Your task to perform on an android device: read, delete, or share a saved page in the chrome app Image 0: 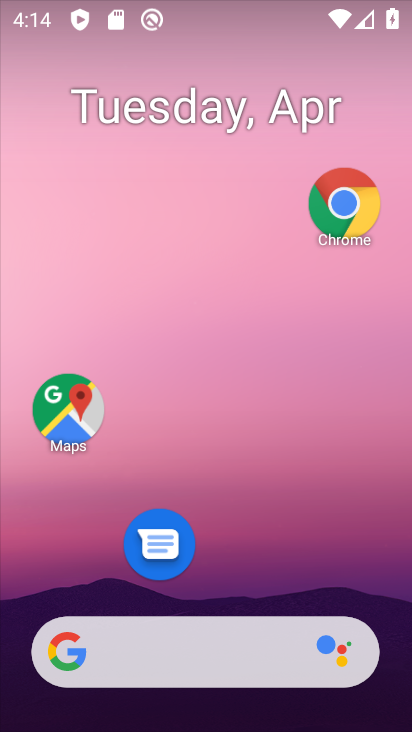
Step 0: click (353, 201)
Your task to perform on an android device: read, delete, or share a saved page in the chrome app Image 1: 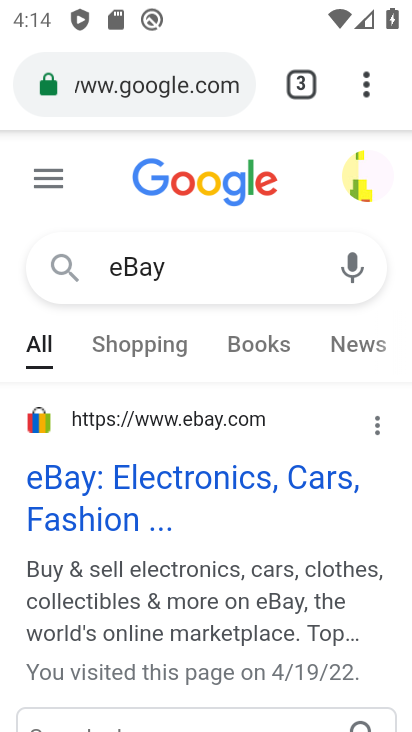
Step 1: click (363, 89)
Your task to perform on an android device: read, delete, or share a saved page in the chrome app Image 2: 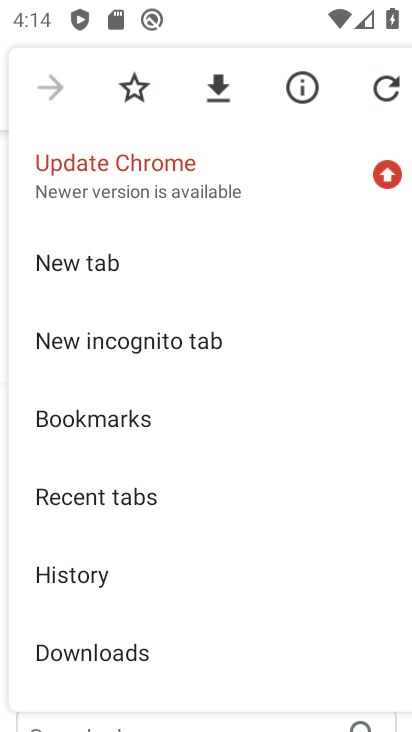
Step 2: click (96, 657)
Your task to perform on an android device: read, delete, or share a saved page in the chrome app Image 3: 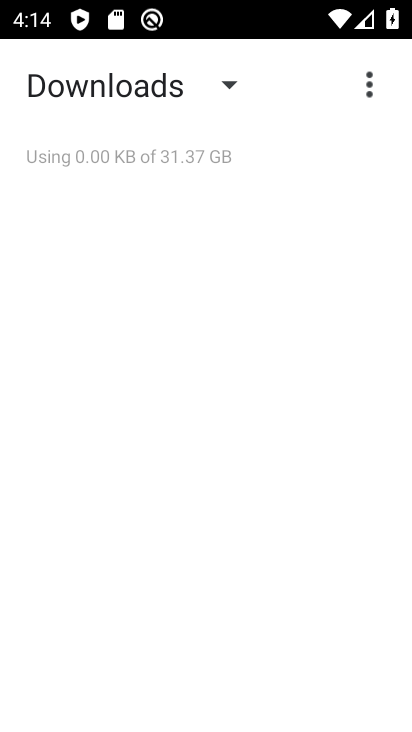
Step 3: task complete